Your task to perform on an android device: change text size in settings app Image 0: 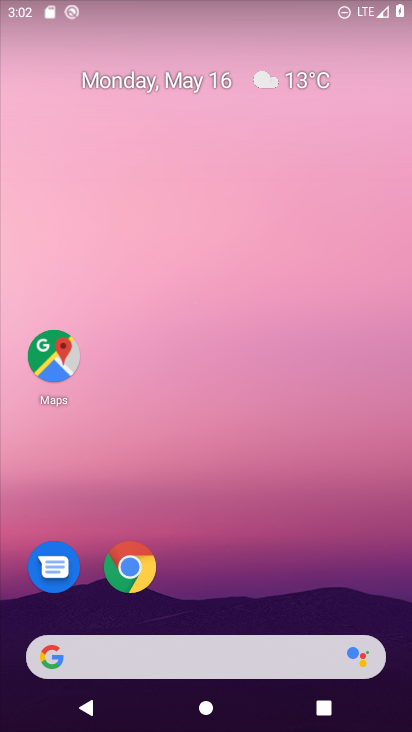
Step 0: drag from (257, 525) to (225, 2)
Your task to perform on an android device: change text size in settings app Image 1: 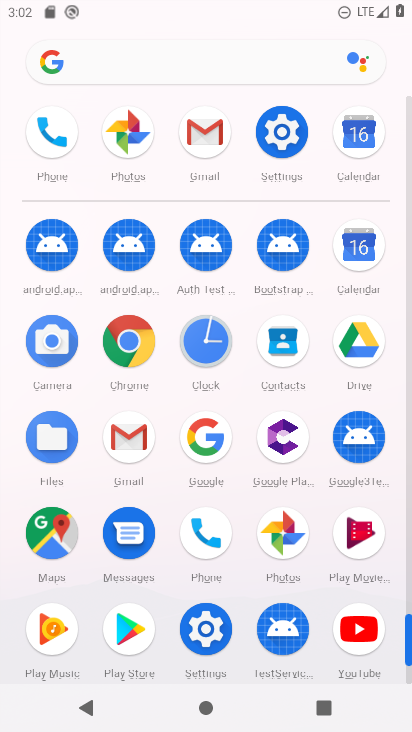
Step 1: click (279, 134)
Your task to perform on an android device: change text size in settings app Image 2: 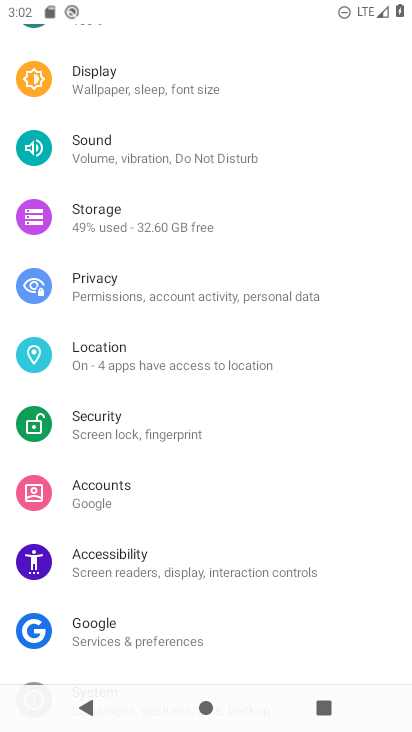
Step 2: click (119, 80)
Your task to perform on an android device: change text size in settings app Image 3: 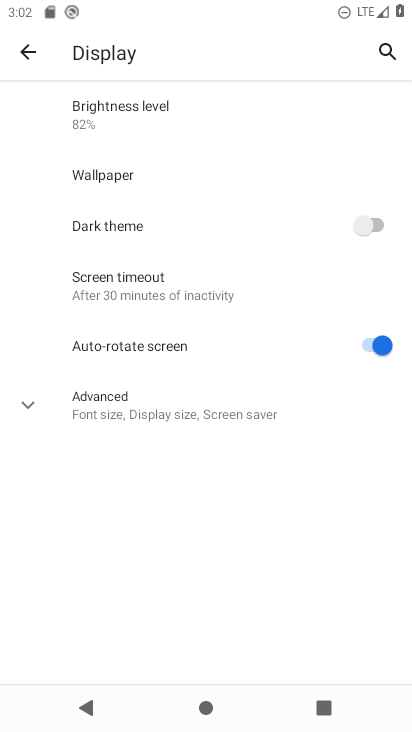
Step 3: click (189, 395)
Your task to perform on an android device: change text size in settings app Image 4: 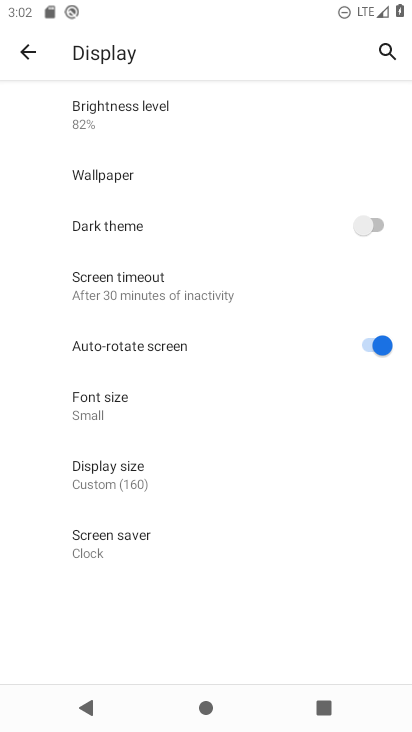
Step 4: click (131, 408)
Your task to perform on an android device: change text size in settings app Image 5: 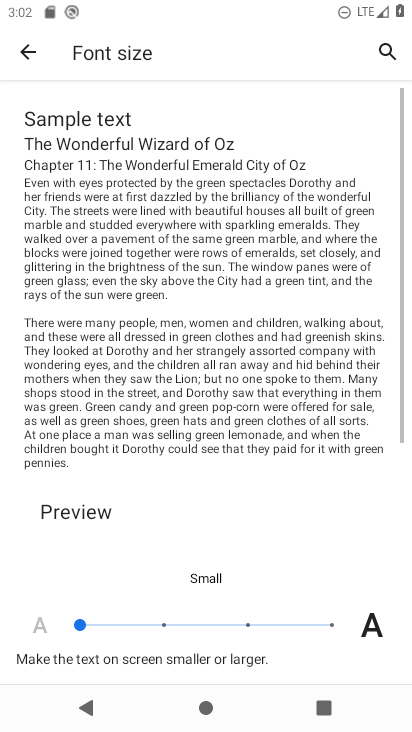
Step 5: task complete